Your task to perform on an android device: stop showing notifications on the lock screen Image 0: 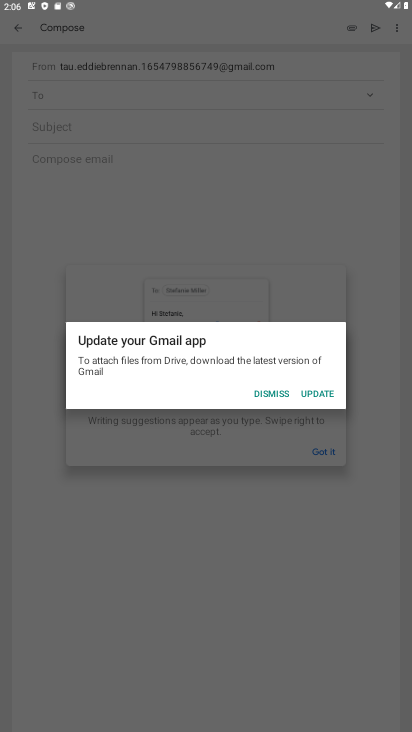
Step 0: press home button
Your task to perform on an android device: stop showing notifications on the lock screen Image 1: 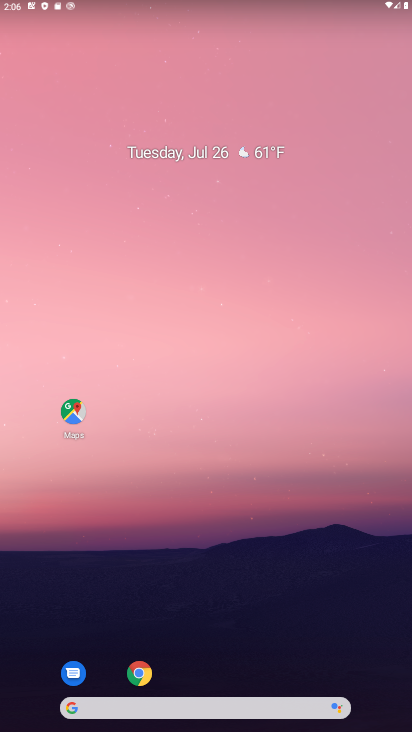
Step 1: drag from (184, 676) to (292, 52)
Your task to perform on an android device: stop showing notifications on the lock screen Image 2: 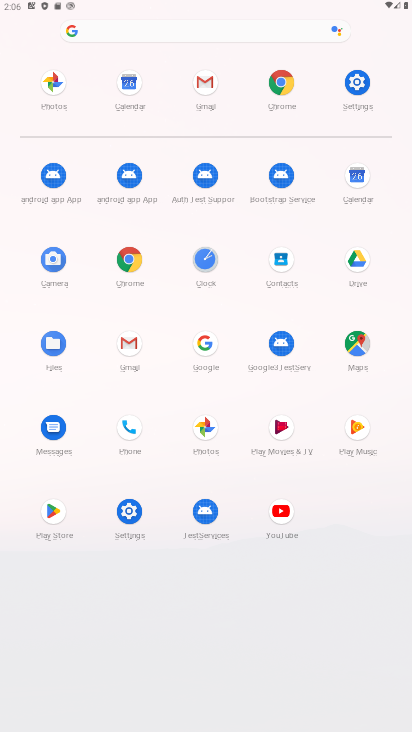
Step 2: click (358, 79)
Your task to perform on an android device: stop showing notifications on the lock screen Image 3: 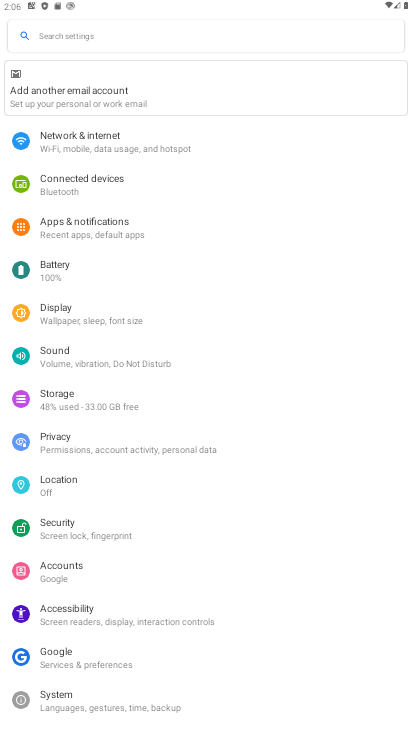
Step 3: click (129, 222)
Your task to perform on an android device: stop showing notifications on the lock screen Image 4: 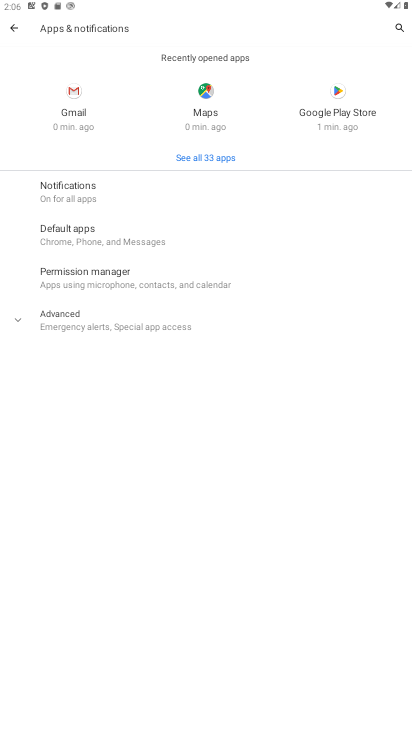
Step 4: click (102, 194)
Your task to perform on an android device: stop showing notifications on the lock screen Image 5: 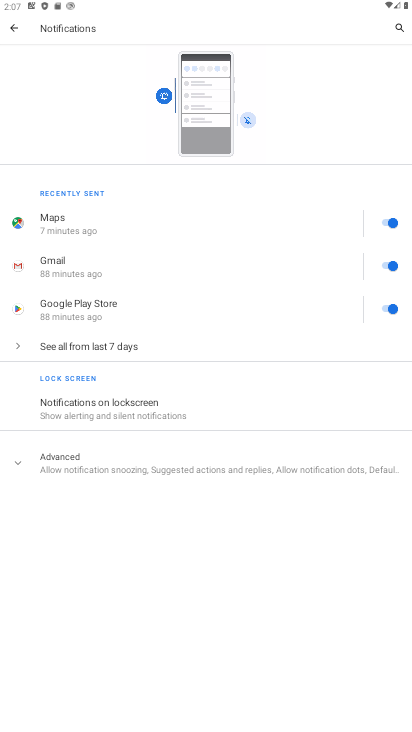
Step 5: click (124, 420)
Your task to perform on an android device: stop showing notifications on the lock screen Image 6: 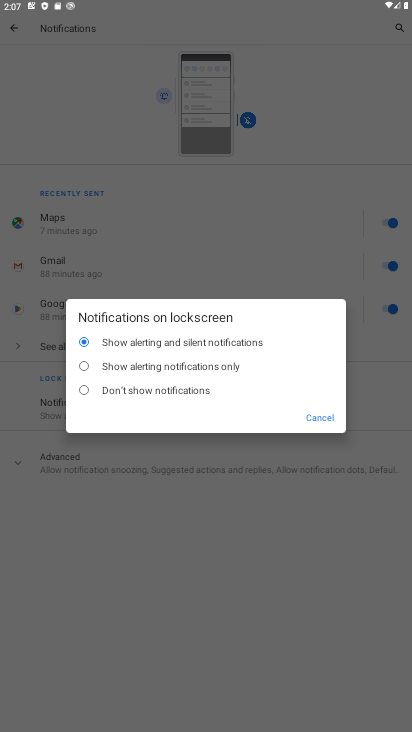
Step 6: click (108, 397)
Your task to perform on an android device: stop showing notifications on the lock screen Image 7: 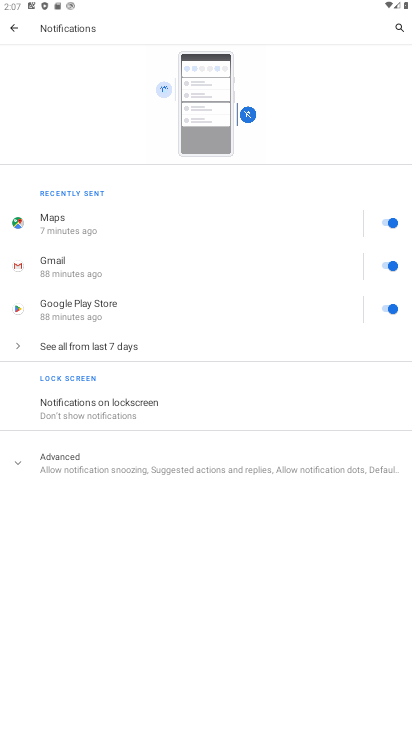
Step 7: task complete